Your task to perform on an android device: Is it going to rain today? Image 0: 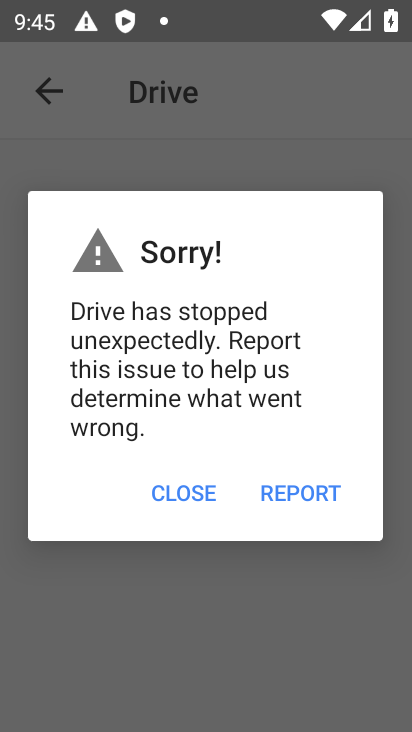
Step 0: press home button
Your task to perform on an android device: Is it going to rain today? Image 1: 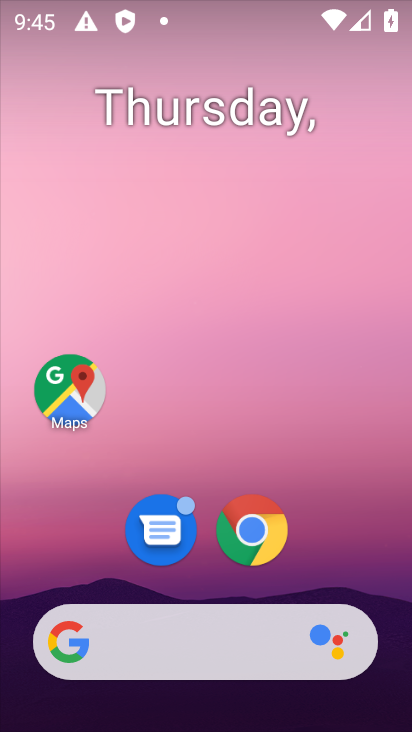
Step 1: click (75, 651)
Your task to perform on an android device: Is it going to rain today? Image 2: 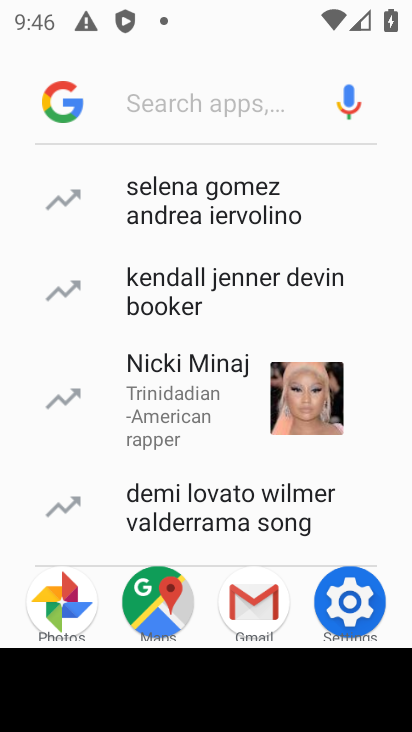
Step 2: type "Is it going to rain today?"
Your task to perform on an android device: Is it going to rain today? Image 3: 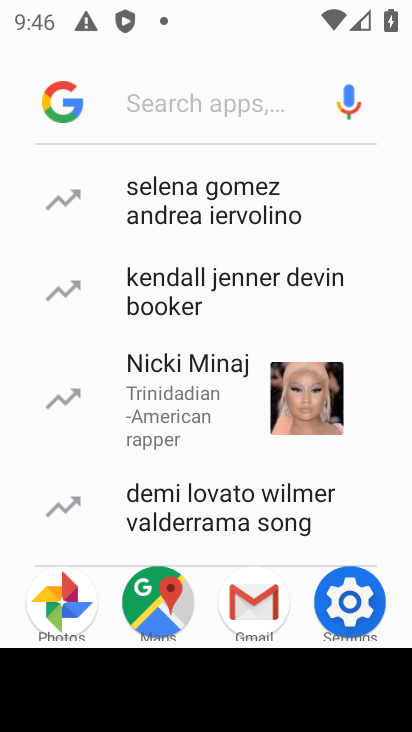
Step 3: click (141, 113)
Your task to perform on an android device: Is it going to rain today? Image 4: 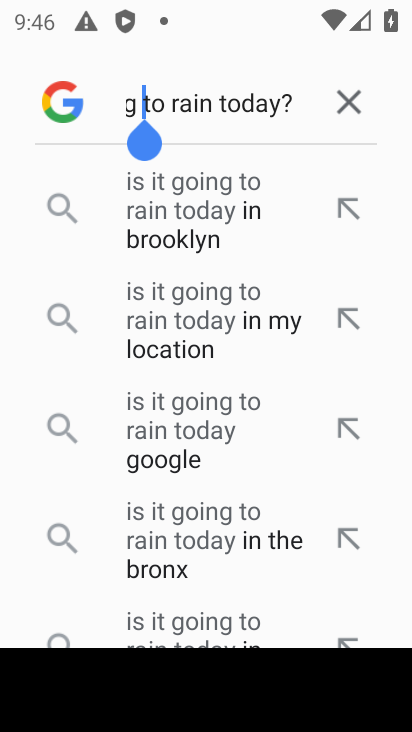
Step 4: press enter
Your task to perform on an android device: Is it going to rain today? Image 5: 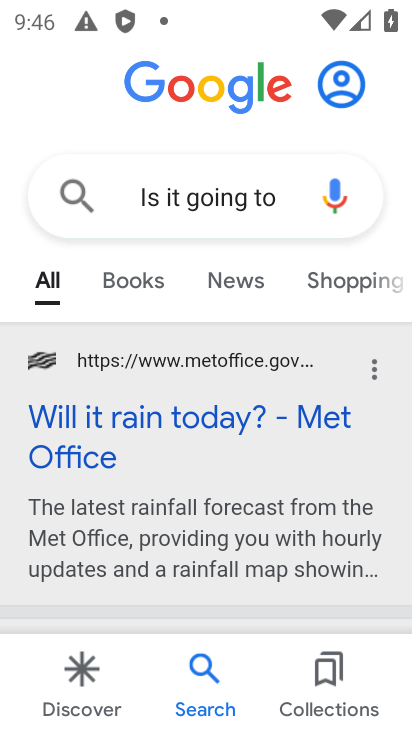
Step 5: drag from (304, 495) to (273, 40)
Your task to perform on an android device: Is it going to rain today? Image 6: 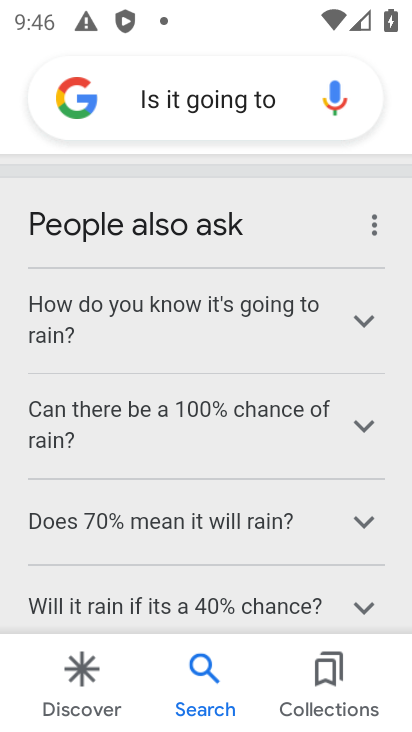
Step 6: drag from (277, 568) to (303, 199)
Your task to perform on an android device: Is it going to rain today? Image 7: 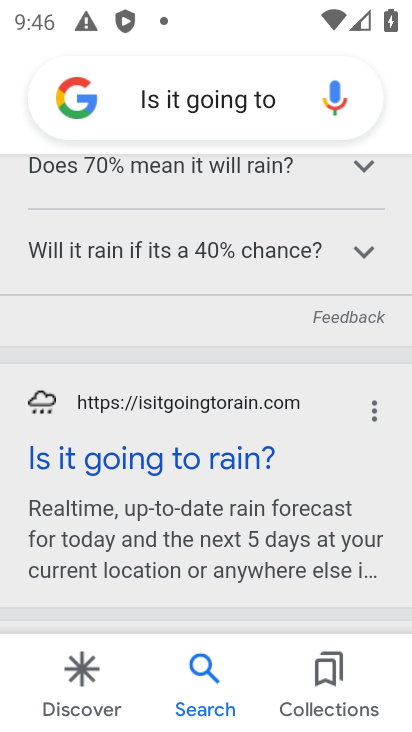
Step 7: drag from (196, 190) to (211, 688)
Your task to perform on an android device: Is it going to rain today? Image 8: 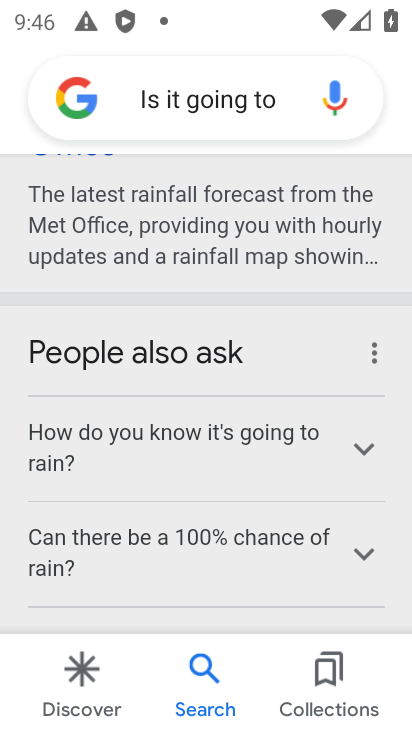
Step 8: drag from (182, 253) to (217, 685)
Your task to perform on an android device: Is it going to rain today? Image 9: 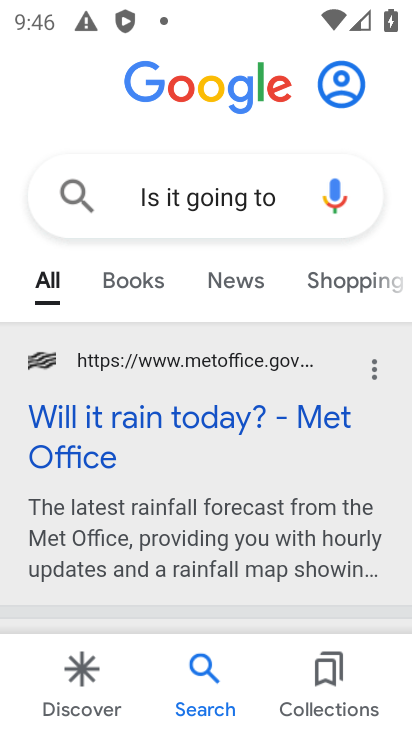
Step 9: type "Is it going to rain today?"
Your task to perform on an android device: Is it going to rain today? Image 10: 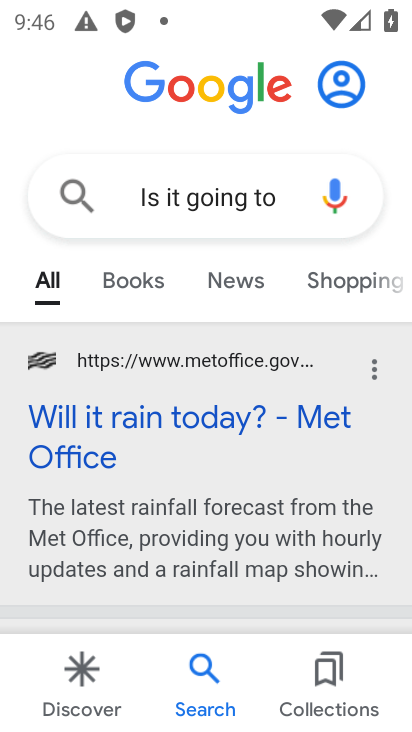
Step 10: click (278, 198)
Your task to perform on an android device: Is it going to rain today? Image 11: 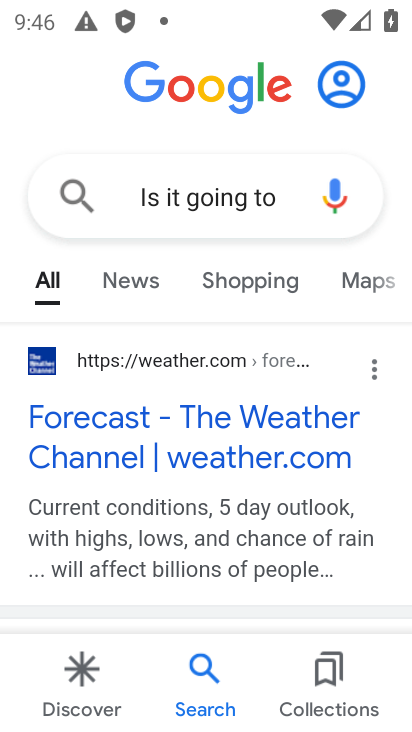
Step 11: task complete